Your task to perform on an android device: Open calendar and show me the third week of next month Image 0: 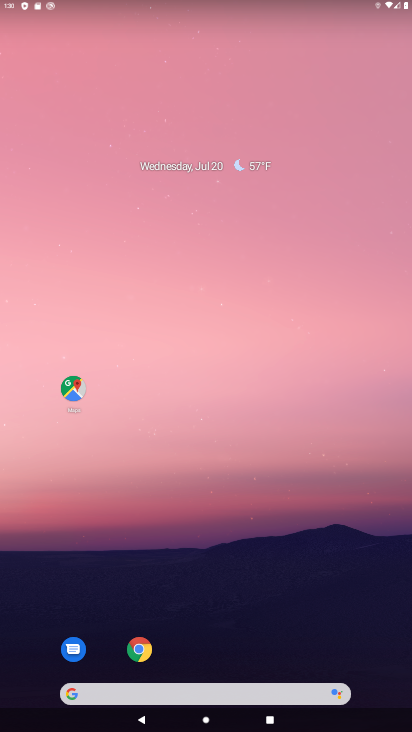
Step 0: click (172, 152)
Your task to perform on an android device: Open calendar and show me the third week of next month Image 1: 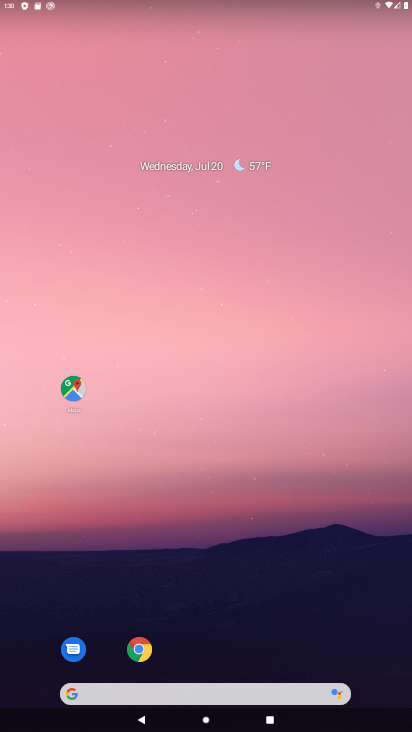
Step 1: click (171, 173)
Your task to perform on an android device: Open calendar and show me the third week of next month Image 2: 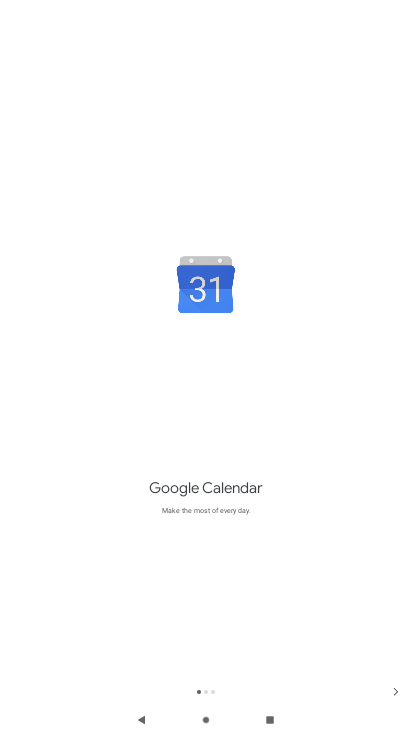
Step 2: click (398, 691)
Your task to perform on an android device: Open calendar and show me the third week of next month Image 3: 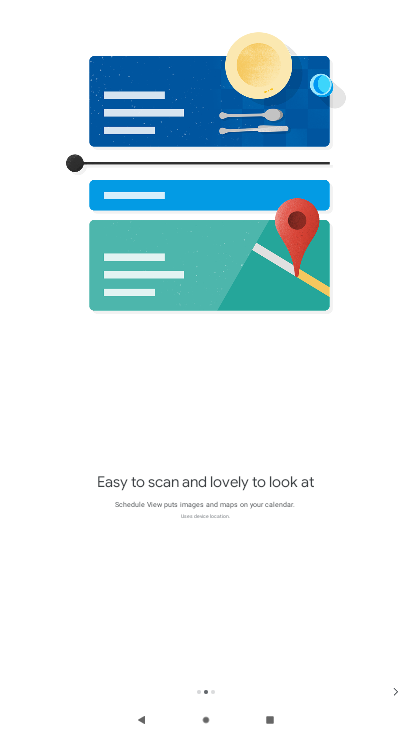
Step 3: click (398, 691)
Your task to perform on an android device: Open calendar and show me the third week of next month Image 4: 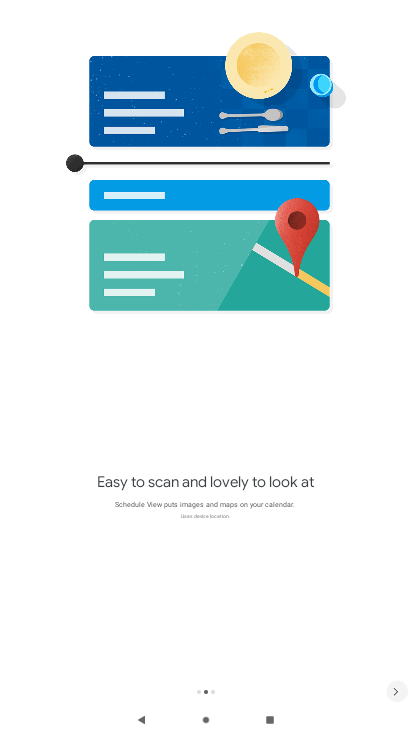
Step 4: click (398, 691)
Your task to perform on an android device: Open calendar and show me the third week of next month Image 5: 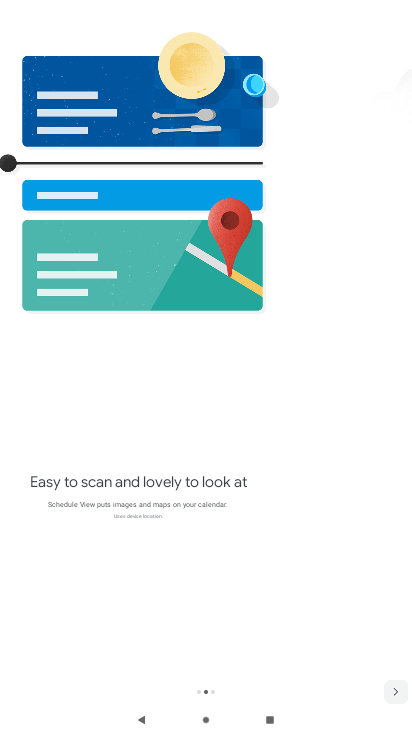
Step 5: click (398, 691)
Your task to perform on an android device: Open calendar and show me the third week of next month Image 6: 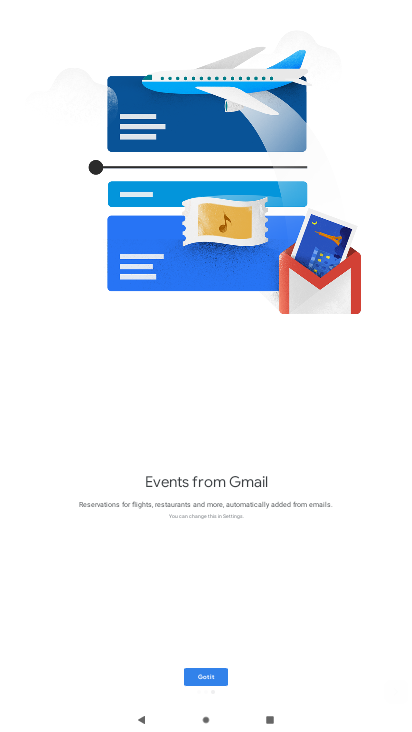
Step 6: click (398, 691)
Your task to perform on an android device: Open calendar and show me the third week of next month Image 7: 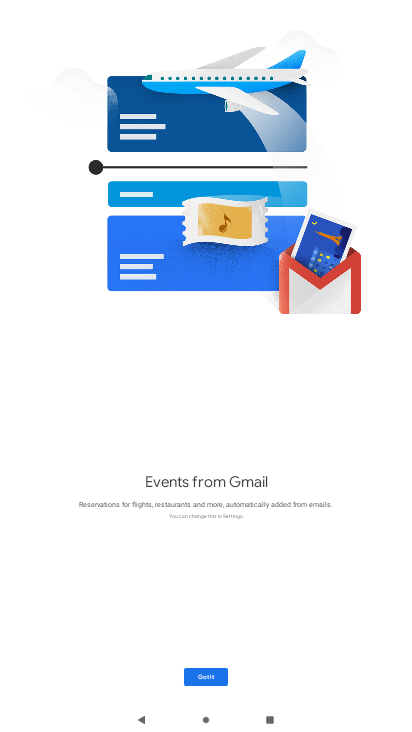
Step 7: click (398, 691)
Your task to perform on an android device: Open calendar and show me the third week of next month Image 8: 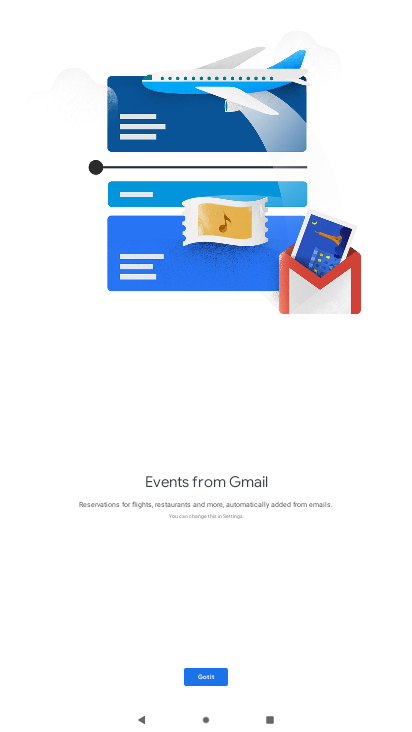
Step 8: click (398, 691)
Your task to perform on an android device: Open calendar and show me the third week of next month Image 9: 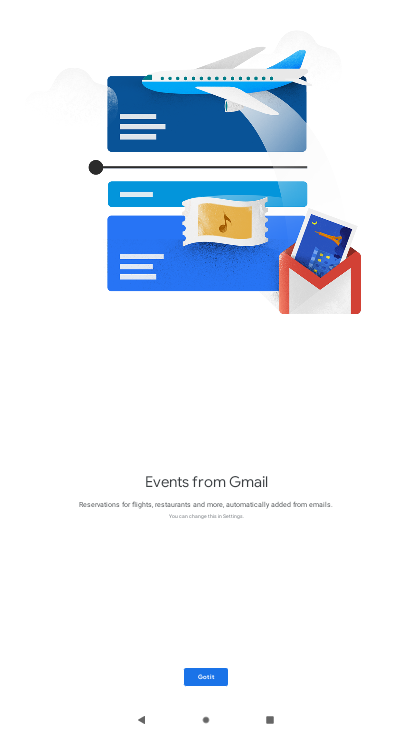
Step 9: click (398, 691)
Your task to perform on an android device: Open calendar and show me the third week of next month Image 10: 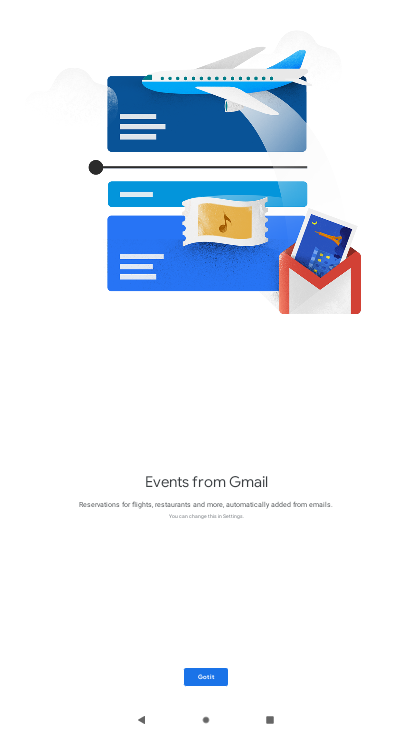
Step 10: click (398, 691)
Your task to perform on an android device: Open calendar and show me the third week of next month Image 11: 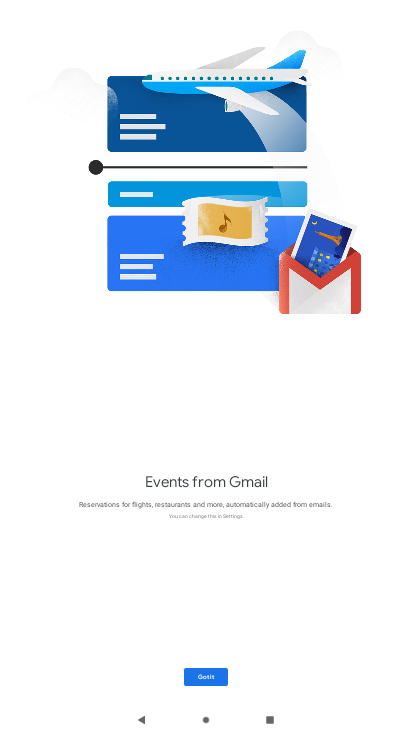
Step 11: click (398, 691)
Your task to perform on an android device: Open calendar and show me the third week of next month Image 12: 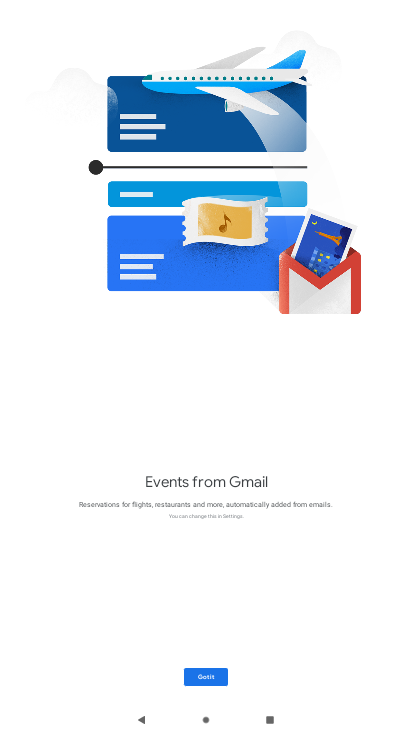
Step 12: click (398, 691)
Your task to perform on an android device: Open calendar and show me the third week of next month Image 13: 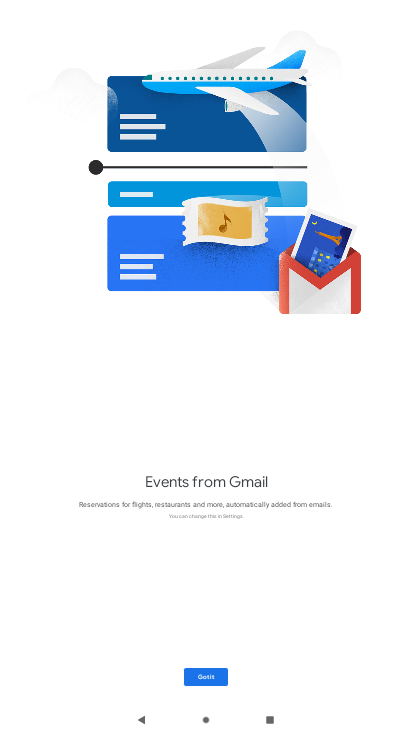
Step 13: click (398, 691)
Your task to perform on an android device: Open calendar and show me the third week of next month Image 14: 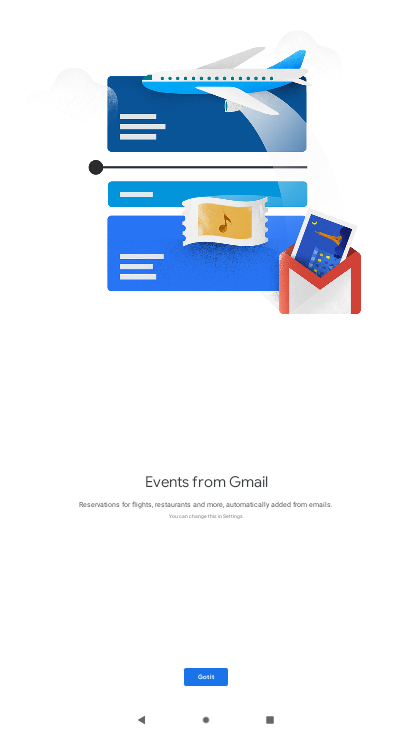
Step 14: click (203, 688)
Your task to perform on an android device: Open calendar and show me the third week of next month Image 15: 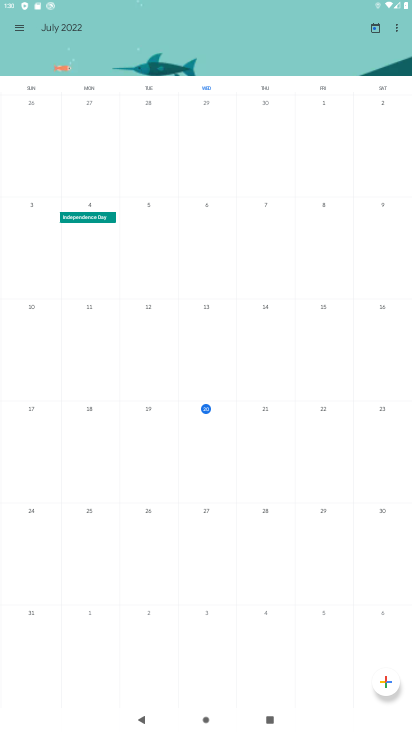
Step 15: click (95, 39)
Your task to perform on an android device: Open calendar and show me the third week of next month Image 16: 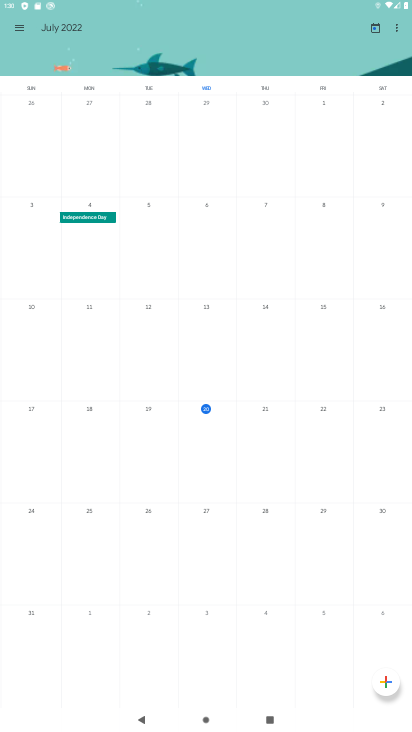
Step 16: click (95, 33)
Your task to perform on an android device: Open calendar and show me the third week of next month Image 17: 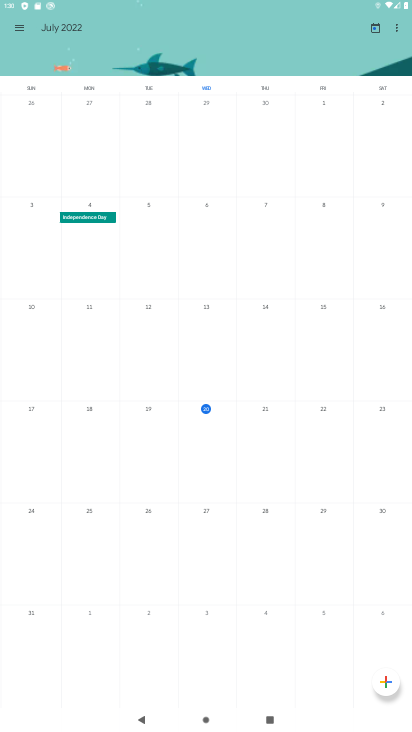
Step 17: click (28, 32)
Your task to perform on an android device: Open calendar and show me the third week of next month Image 18: 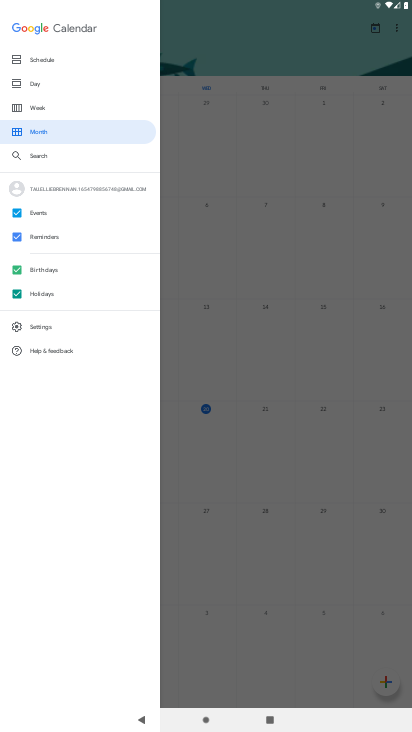
Step 18: click (62, 106)
Your task to perform on an android device: Open calendar and show me the third week of next month Image 19: 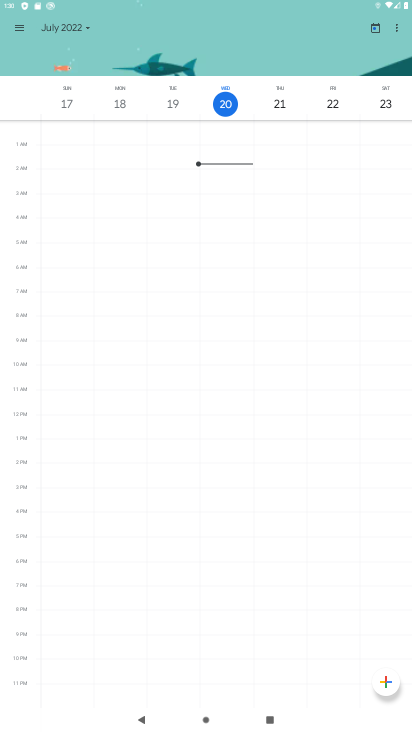
Step 19: click (87, 37)
Your task to perform on an android device: Open calendar and show me the third week of next month Image 20: 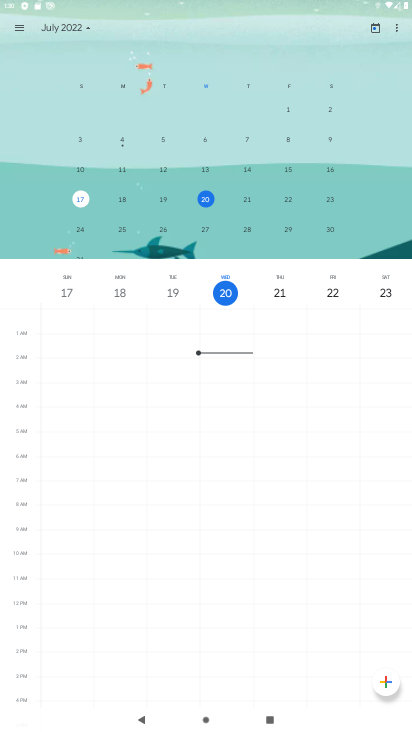
Step 20: drag from (365, 212) to (14, 143)
Your task to perform on an android device: Open calendar and show me the third week of next month Image 21: 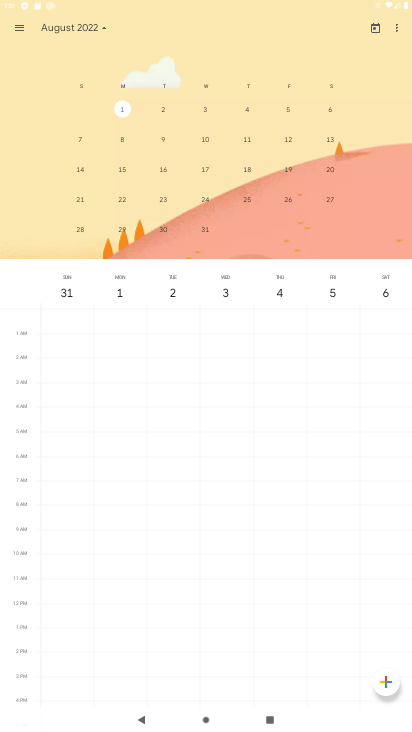
Step 21: click (125, 170)
Your task to perform on an android device: Open calendar and show me the third week of next month Image 22: 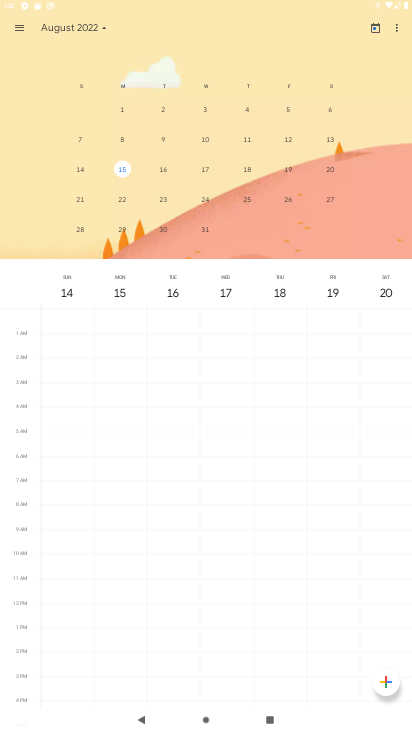
Step 22: task complete